Your task to perform on an android device: check android version Image 0: 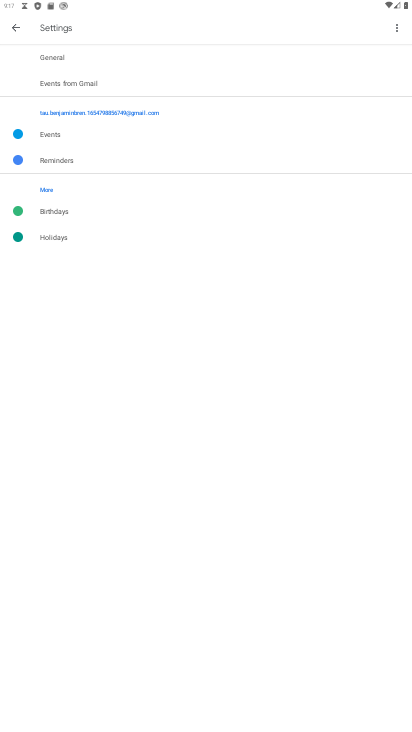
Step 0: press home button
Your task to perform on an android device: check android version Image 1: 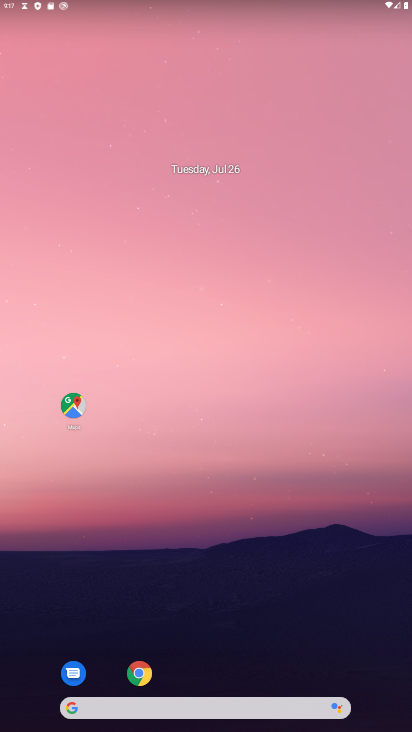
Step 1: drag from (188, 712) to (242, 107)
Your task to perform on an android device: check android version Image 2: 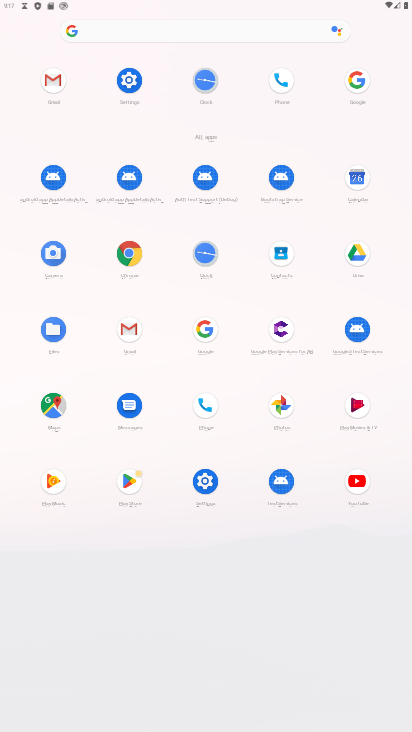
Step 2: click (128, 81)
Your task to perform on an android device: check android version Image 3: 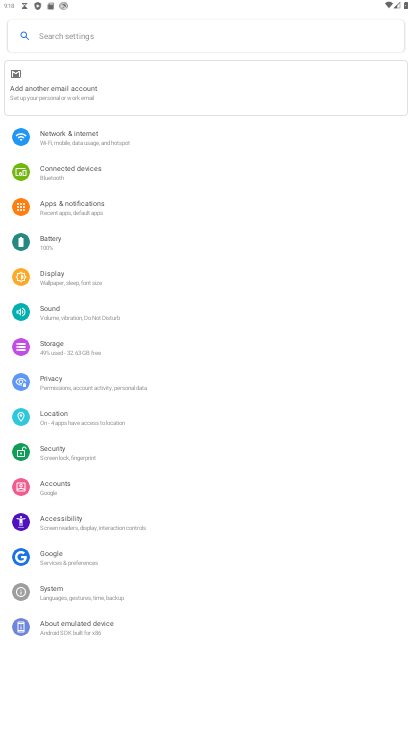
Step 3: click (67, 626)
Your task to perform on an android device: check android version Image 4: 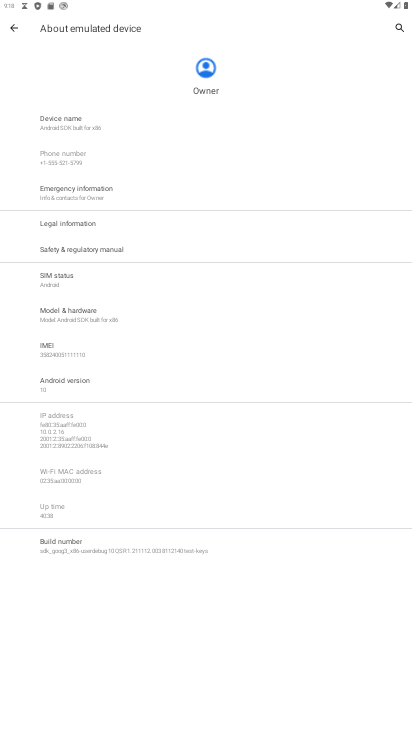
Step 4: click (65, 381)
Your task to perform on an android device: check android version Image 5: 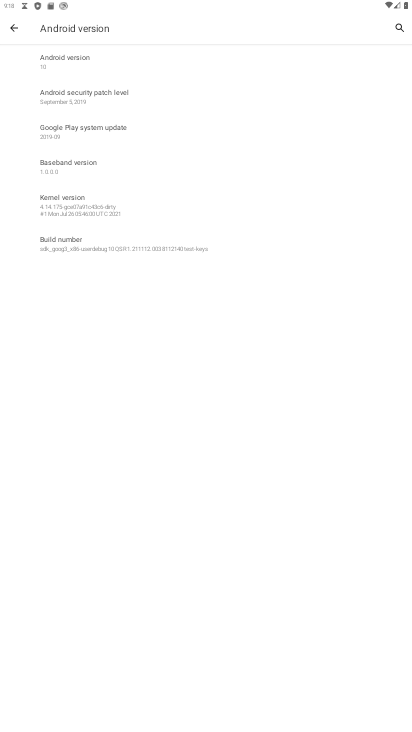
Step 5: task complete